Your task to perform on an android device: Is it going to rain this weekend? Image 0: 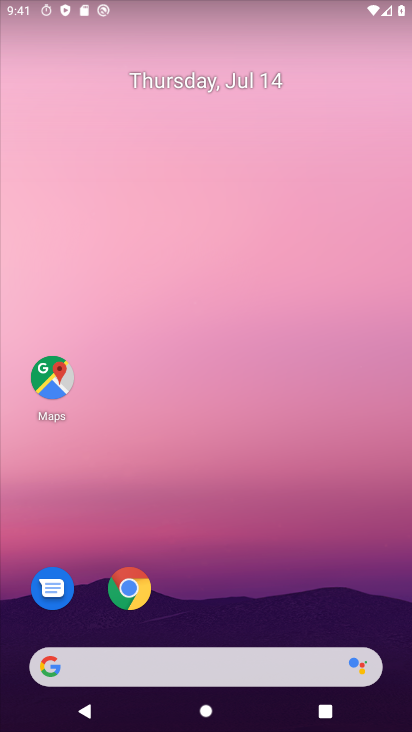
Step 0: drag from (193, 637) to (178, 247)
Your task to perform on an android device: Is it going to rain this weekend? Image 1: 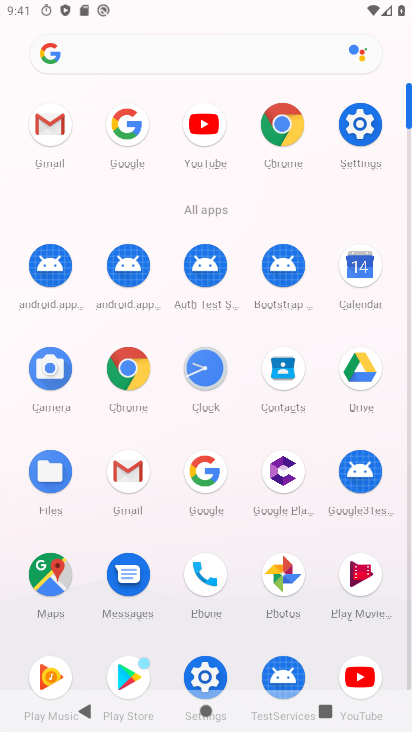
Step 1: click (204, 465)
Your task to perform on an android device: Is it going to rain this weekend? Image 2: 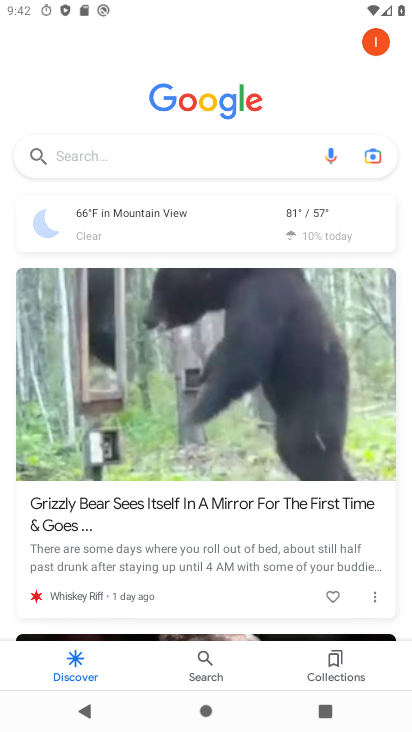
Step 2: click (129, 144)
Your task to perform on an android device: Is it going to rain this weekend? Image 3: 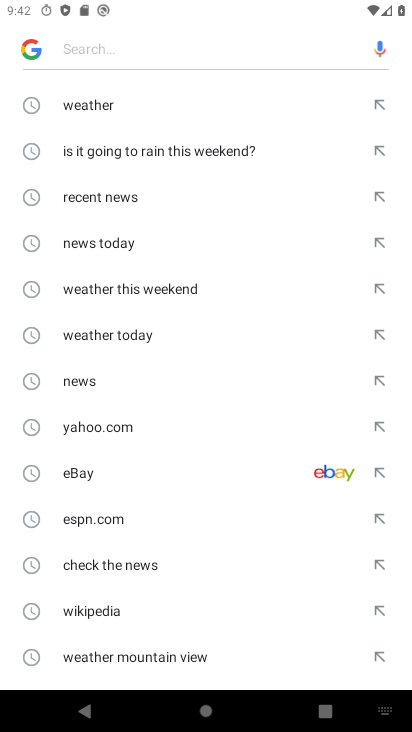
Step 3: click (151, 148)
Your task to perform on an android device: Is it going to rain this weekend? Image 4: 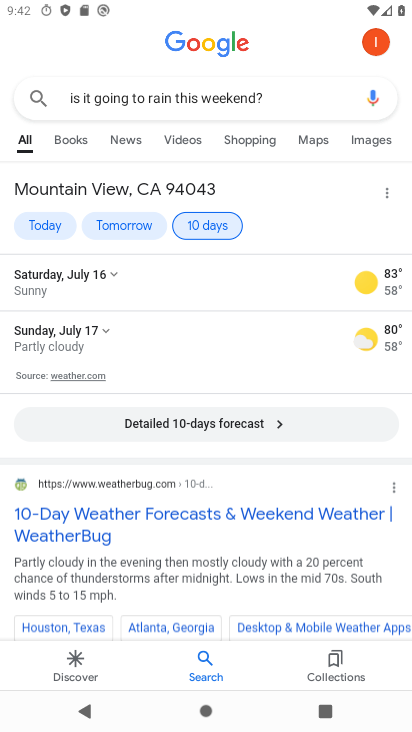
Step 4: click (197, 422)
Your task to perform on an android device: Is it going to rain this weekend? Image 5: 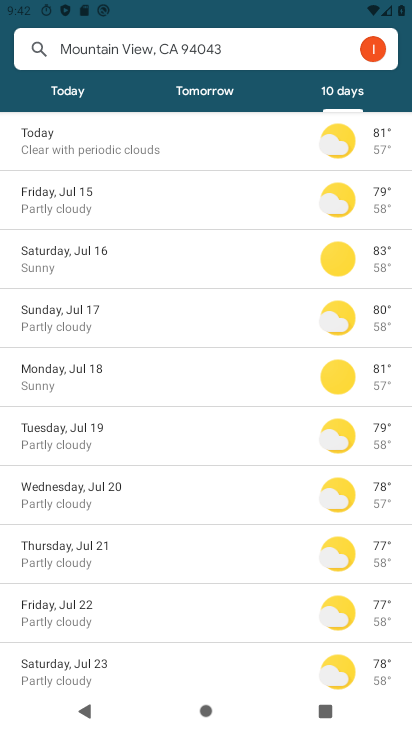
Step 5: task complete